Your task to perform on an android device: Open the calendar and show me this week's events Image 0: 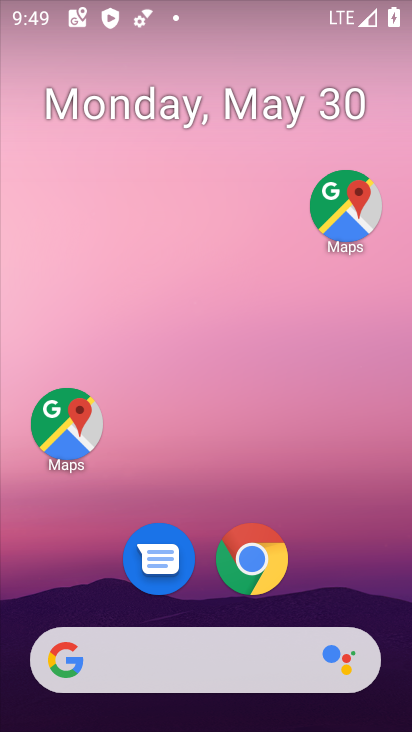
Step 0: drag from (384, 531) to (366, 177)
Your task to perform on an android device: Open the calendar and show me this week's events Image 1: 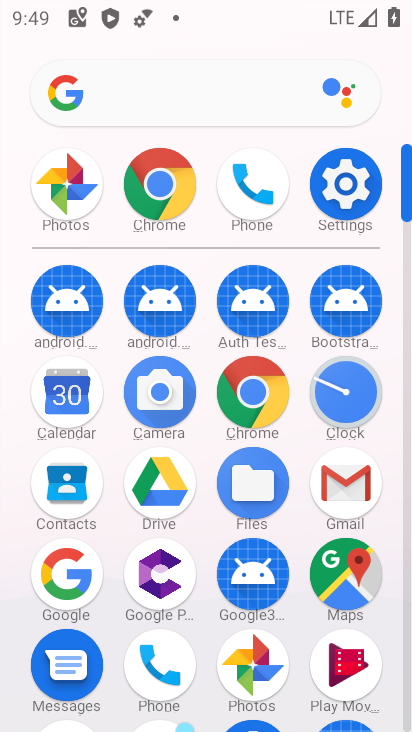
Step 1: click (80, 378)
Your task to perform on an android device: Open the calendar and show me this week's events Image 2: 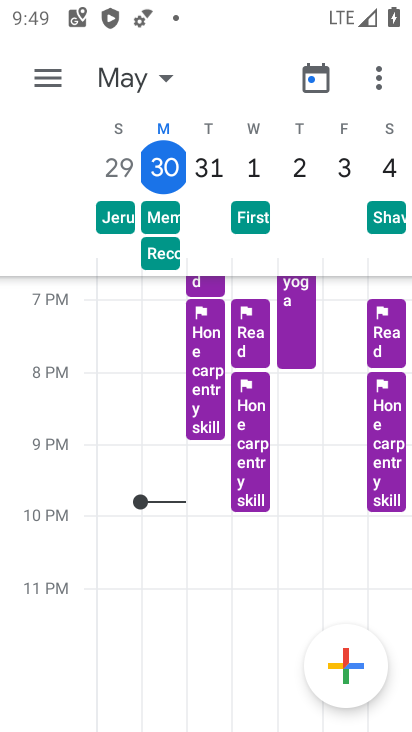
Step 2: click (94, 74)
Your task to perform on an android device: Open the calendar and show me this week's events Image 3: 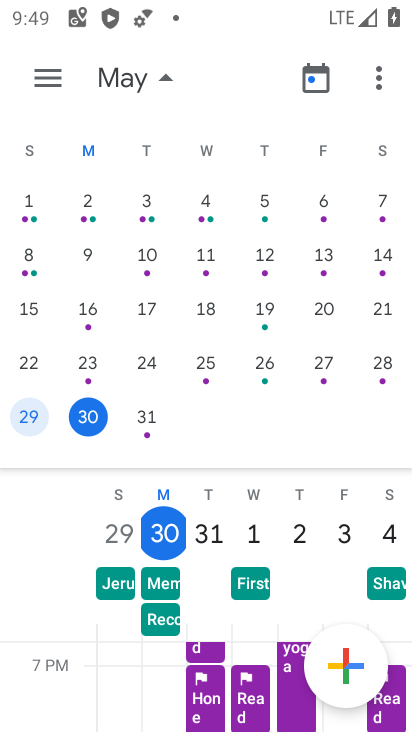
Step 3: click (94, 315)
Your task to perform on an android device: Open the calendar and show me this week's events Image 4: 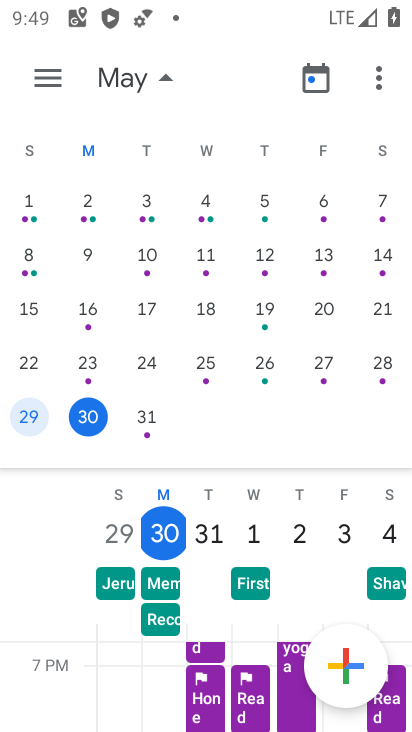
Step 4: task complete